Your task to perform on an android device: Open Google Chrome and click the shortcut for Amazon.com Image 0: 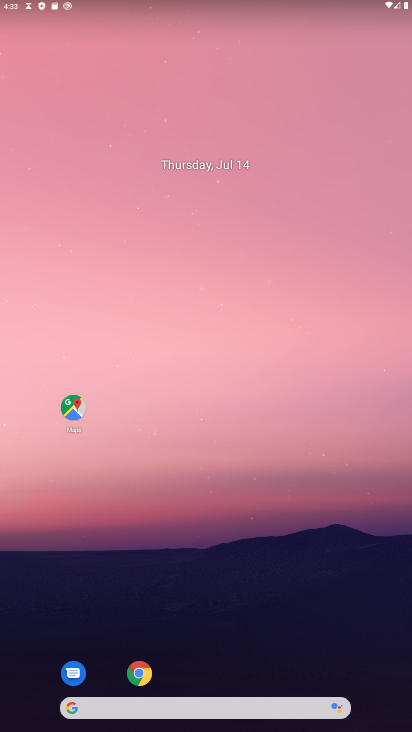
Step 0: drag from (246, 661) to (169, 91)
Your task to perform on an android device: Open Google Chrome and click the shortcut for Amazon.com Image 1: 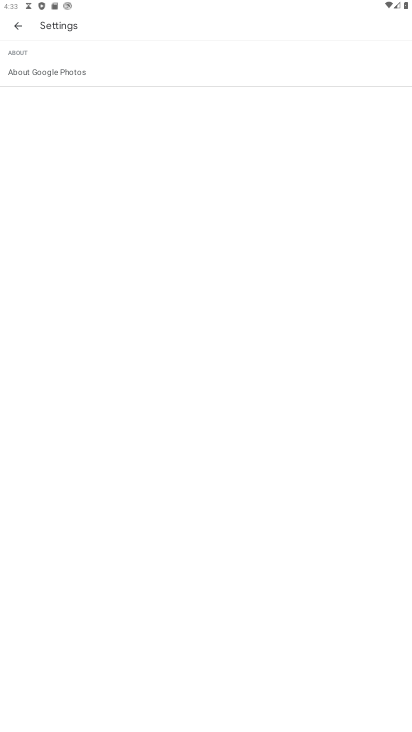
Step 1: drag from (192, 645) to (142, 66)
Your task to perform on an android device: Open Google Chrome and click the shortcut for Amazon.com Image 2: 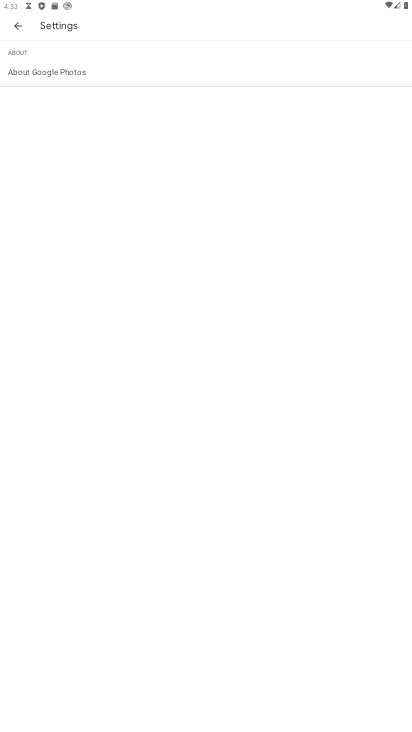
Step 2: click (25, 31)
Your task to perform on an android device: Open Google Chrome and click the shortcut for Amazon.com Image 3: 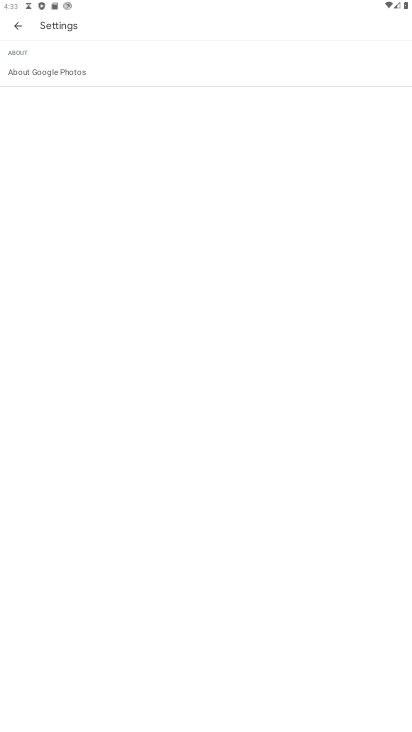
Step 3: click (19, 26)
Your task to perform on an android device: Open Google Chrome and click the shortcut for Amazon.com Image 4: 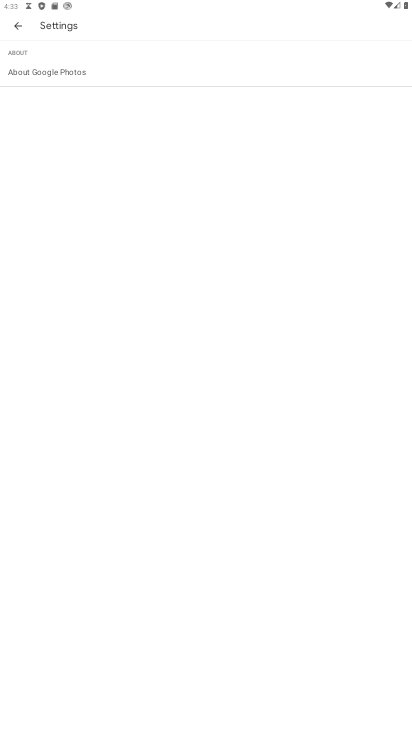
Step 4: click (19, 26)
Your task to perform on an android device: Open Google Chrome and click the shortcut for Amazon.com Image 5: 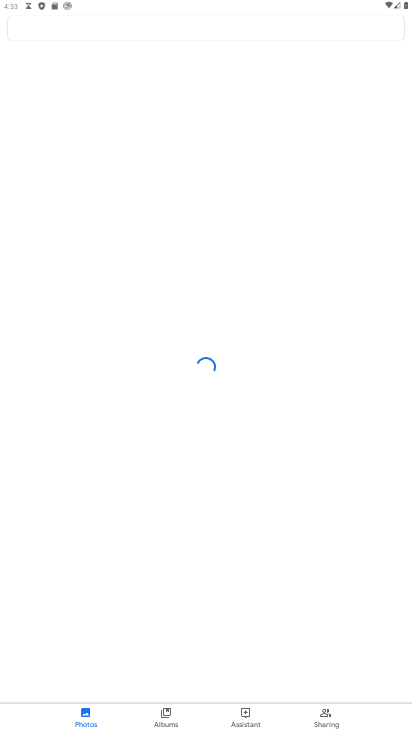
Step 5: press back button
Your task to perform on an android device: Open Google Chrome and click the shortcut for Amazon.com Image 6: 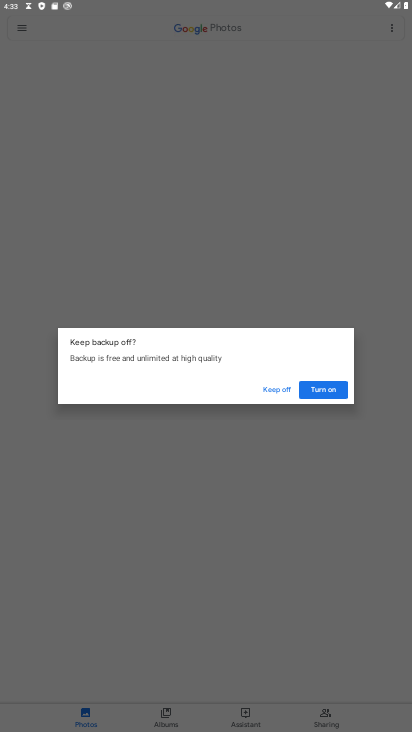
Step 6: click (278, 389)
Your task to perform on an android device: Open Google Chrome and click the shortcut for Amazon.com Image 7: 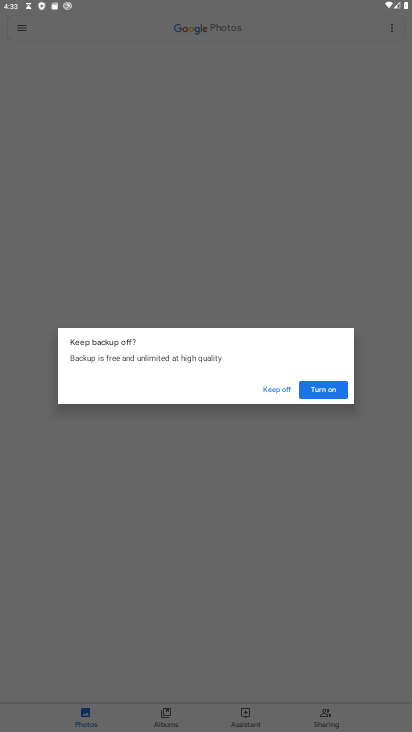
Step 7: click (277, 389)
Your task to perform on an android device: Open Google Chrome and click the shortcut for Amazon.com Image 8: 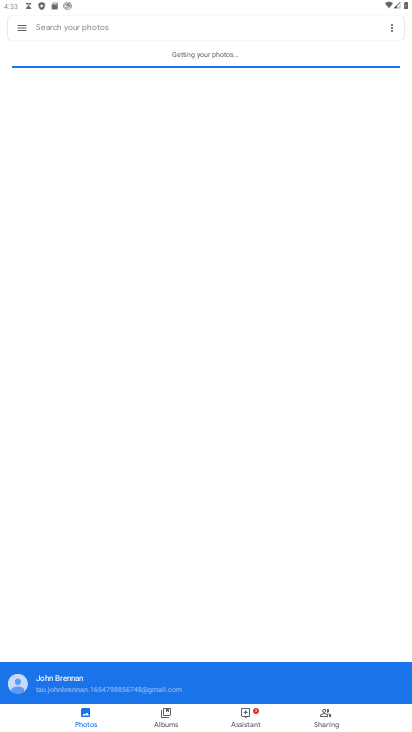
Step 8: press home button
Your task to perform on an android device: Open Google Chrome and click the shortcut for Amazon.com Image 9: 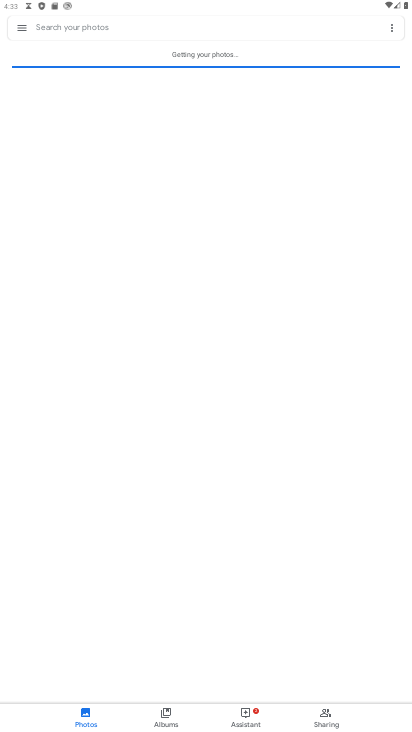
Step 9: press home button
Your task to perform on an android device: Open Google Chrome and click the shortcut for Amazon.com Image 10: 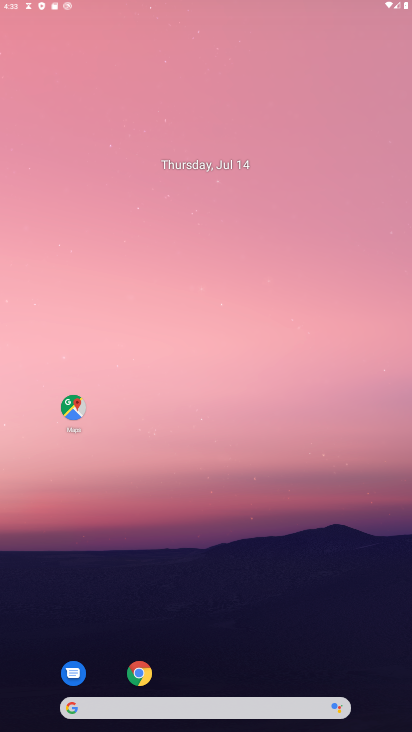
Step 10: press home button
Your task to perform on an android device: Open Google Chrome and click the shortcut for Amazon.com Image 11: 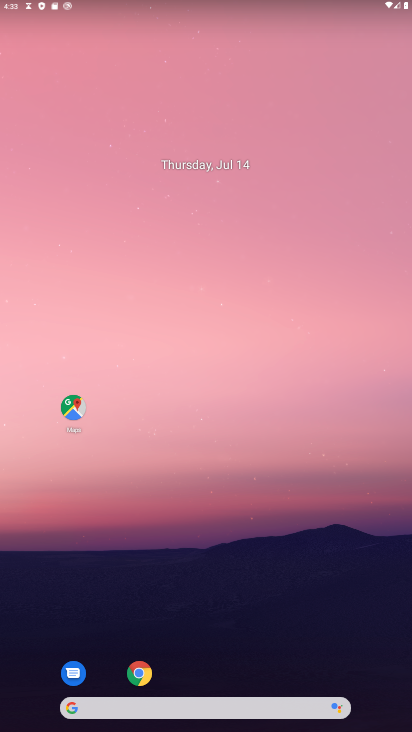
Step 11: drag from (261, 513) to (179, 25)
Your task to perform on an android device: Open Google Chrome and click the shortcut for Amazon.com Image 12: 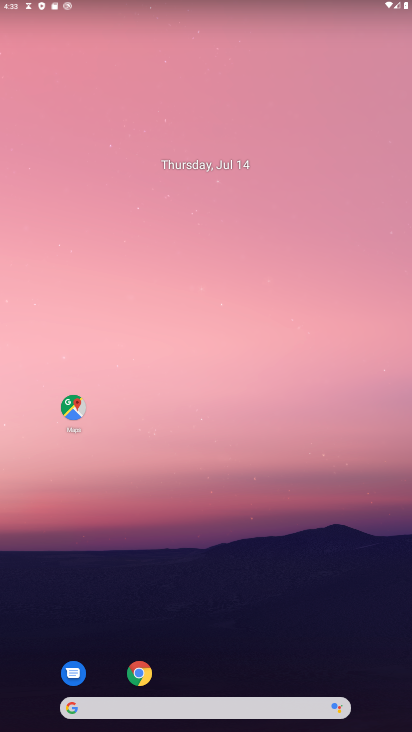
Step 12: drag from (202, 618) to (175, 140)
Your task to perform on an android device: Open Google Chrome and click the shortcut for Amazon.com Image 13: 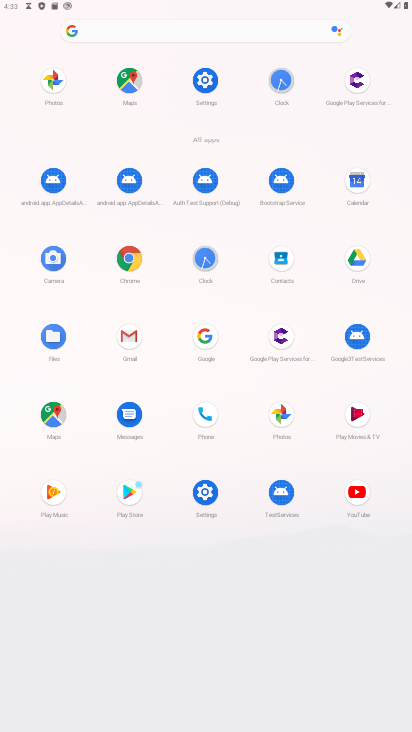
Step 13: click (127, 252)
Your task to perform on an android device: Open Google Chrome and click the shortcut for Amazon.com Image 14: 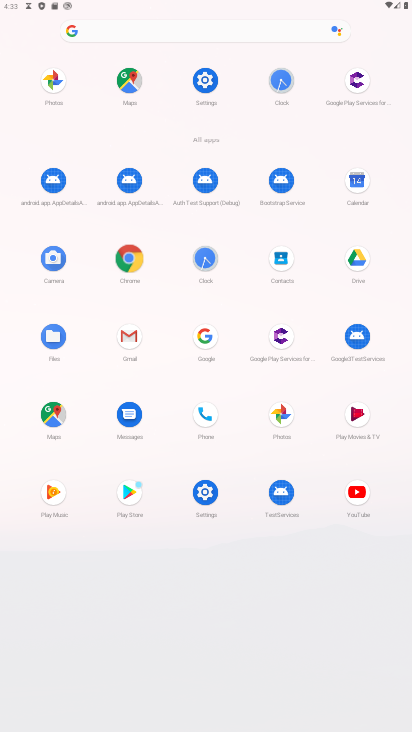
Step 14: click (127, 252)
Your task to perform on an android device: Open Google Chrome and click the shortcut for Amazon.com Image 15: 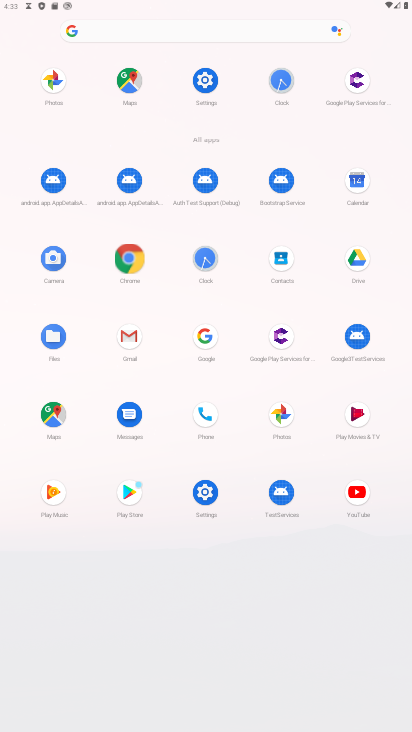
Step 15: click (133, 261)
Your task to perform on an android device: Open Google Chrome and click the shortcut for Amazon.com Image 16: 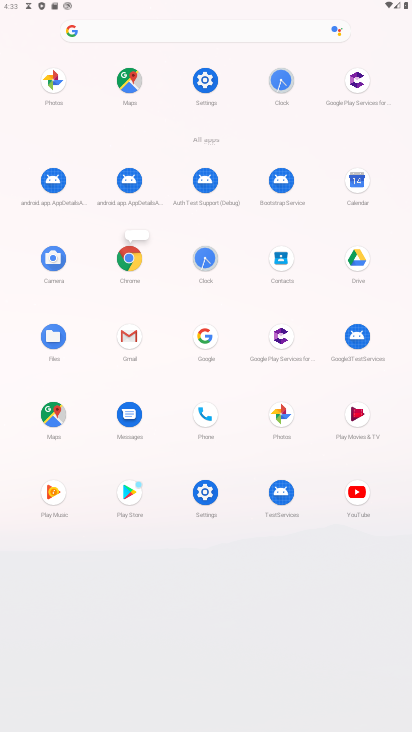
Step 16: click (134, 263)
Your task to perform on an android device: Open Google Chrome and click the shortcut for Amazon.com Image 17: 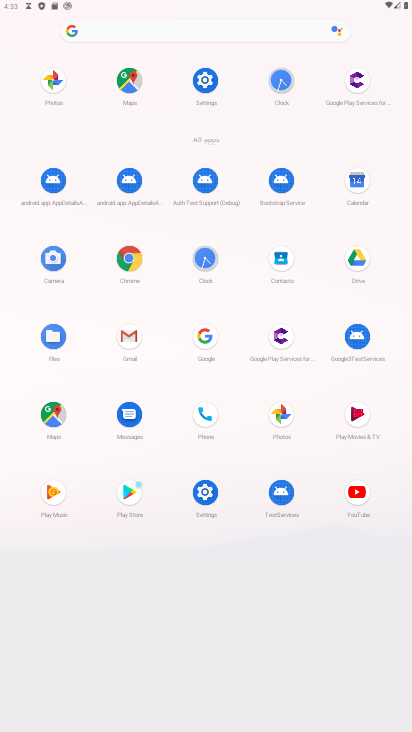
Step 17: click (135, 263)
Your task to perform on an android device: Open Google Chrome and click the shortcut for Amazon.com Image 18: 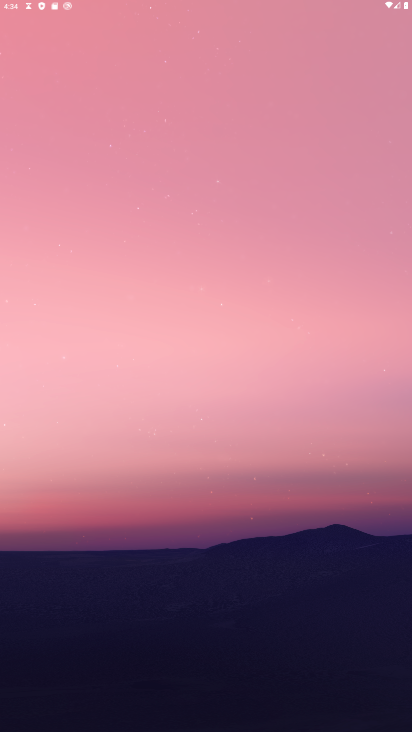
Step 18: click (136, 263)
Your task to perform on an android device: Open Google Chrome and click the shortcut for Amazon.com Image 19: 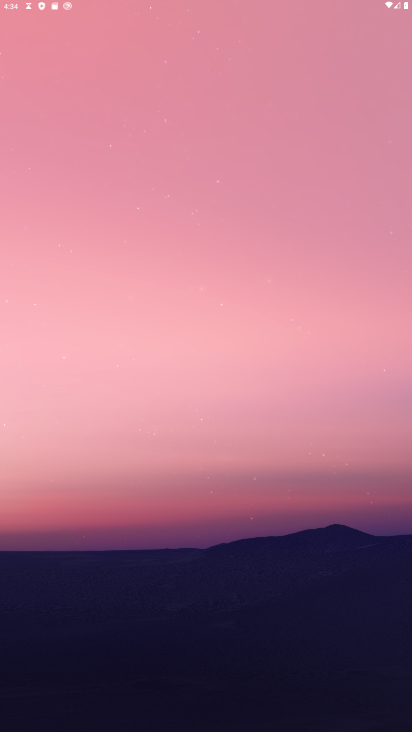
Step 19: click (137, 263)
Your task to perform on an android device: Open Google Chrome and click the shortcut for Amazon.com Image 20: 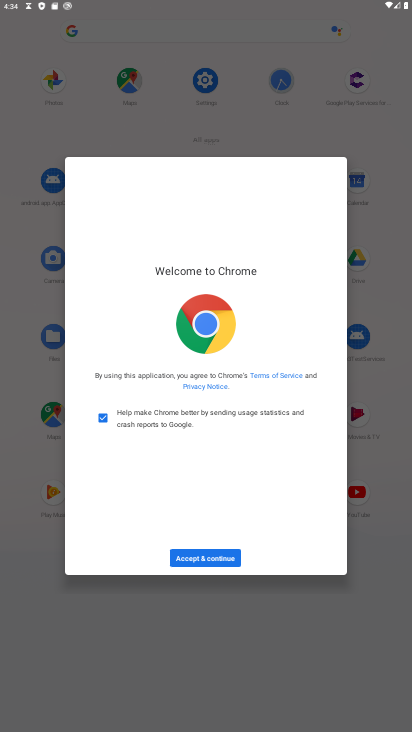
Step 20: click (203, 542)
Your task to perform on an android device: Open Google Chrome and click the shortcut for Amazon.com Image 21: 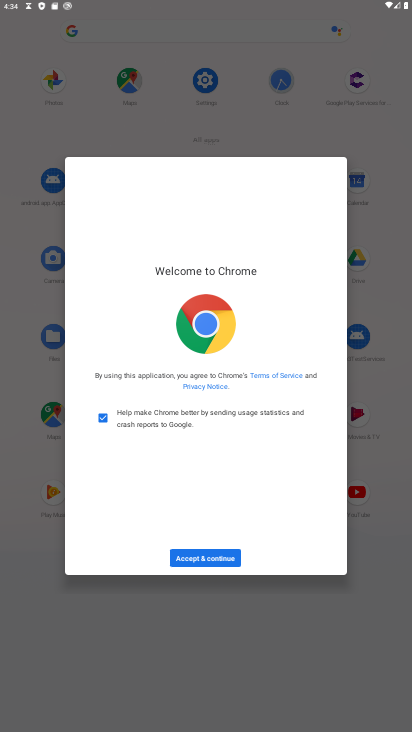
Step 21: click (203, 550)
Your task to perform on an android device: Open Google Chrome and click the shortcut for Amazon.com Image 22: 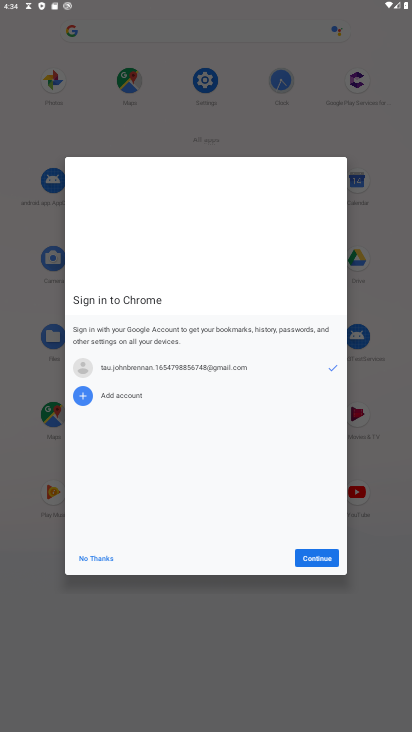
Step 22: click (204, 550)
Your task to perform on an android device: Open Google Chrome and click the shortcut for Amazon.com Image 23: 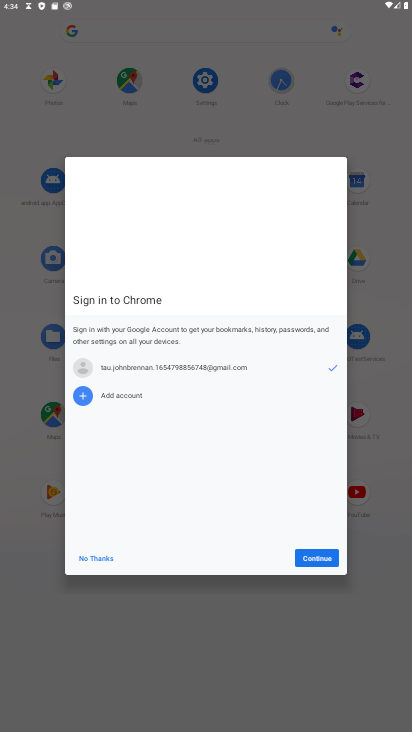
Step 23: click (205, 550)
Your task to perform on an android device: Open Google Chrome and click the shortcut for Amazon.com Image 24: 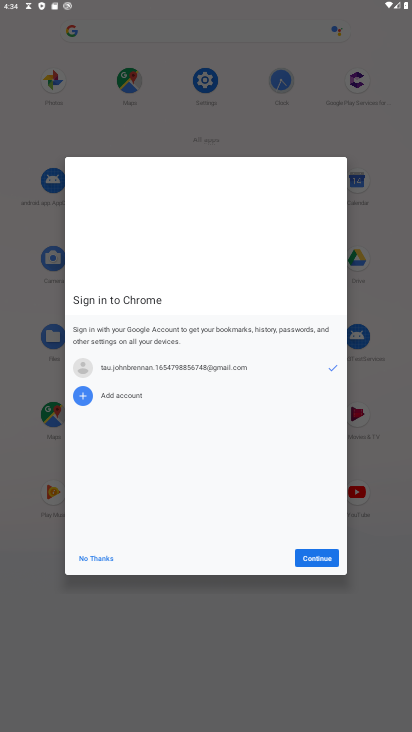
Step 24: click (207, 550)
Your task to perform on an android device: Open Google Chrome and click the shortcut for Amazon.com Image 25: 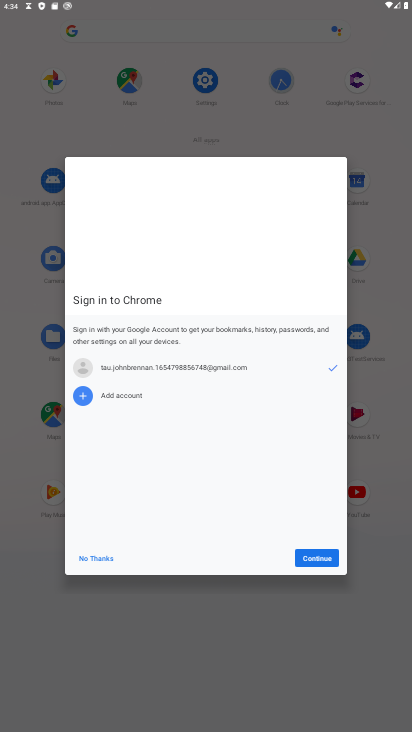
Step 25: click (316, 559)
Your task to perform on an android device: Open Google Chrome and click the shortcut for Amazon.com Image 26: 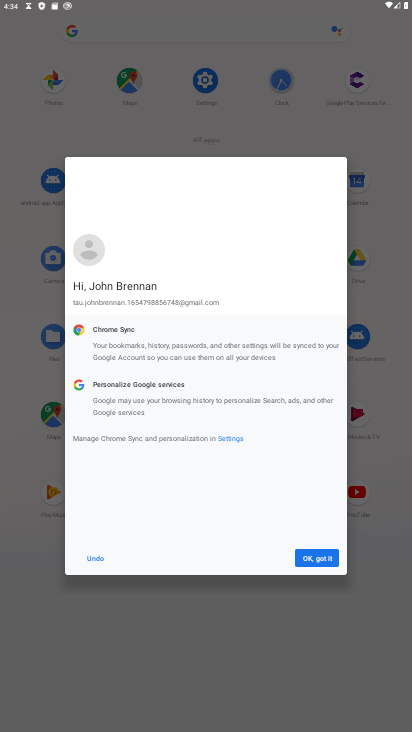
Step 26: click (316, 559)
Your task to perform on an android device: Open Google Chrome and click the shortcut for Amazon.com Image 27: 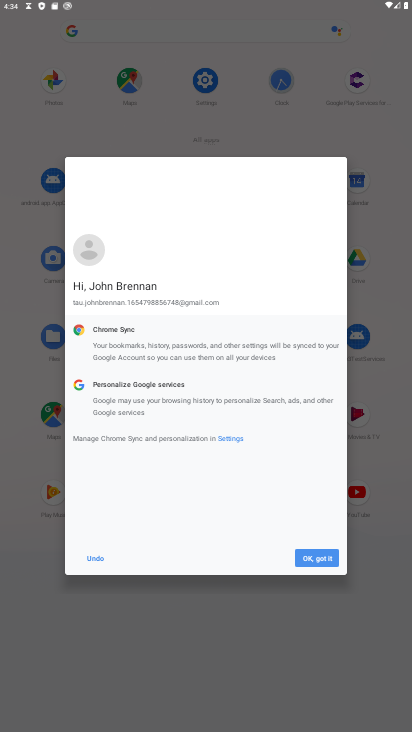
Step 27: click (320, 557)
Your task to perform on an android device: Open Google Chrome and click the shortcut for Amazon.com Image 28: 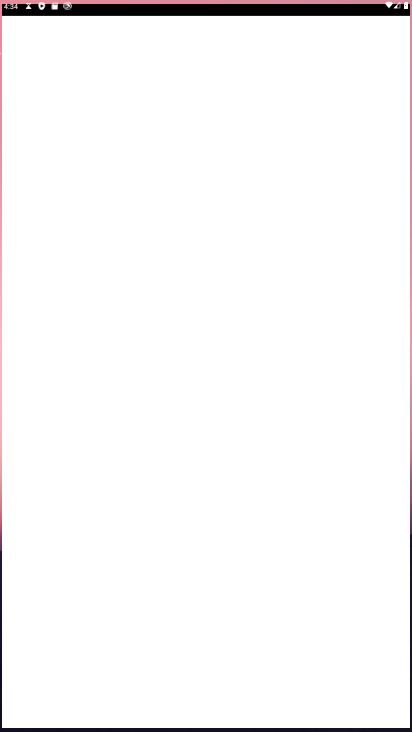
Step 28: click (321, 562)
Your task to perform on an android device: Open Google Chrome and click the shortcut for Amazon.com Image 29: 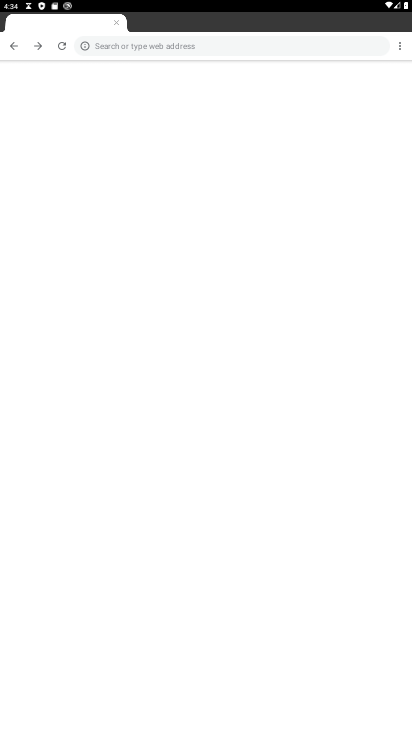
Step 29: click (321, 563)
Your task to perform on an android device: Open Google Chrome and click the shortcut for Amazon.com Image 30: 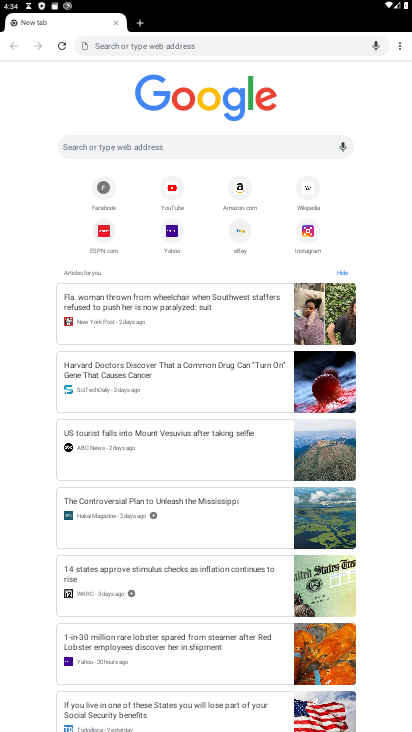
Step 30: click (250, 188)
Your task to perform on an android device: Open Google Chrome and click the shortcut for Amazon.com Image 31: 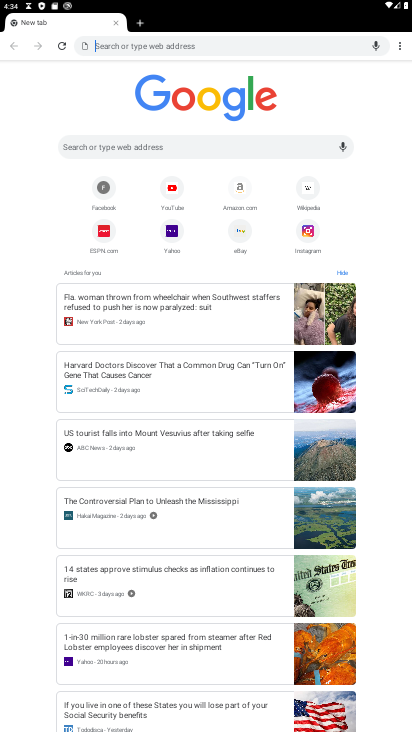
Step 31: click (248, 199)
Your task to perform on an android device: Open Google Chrome and click the shortcut for Amazon.com Image 32: 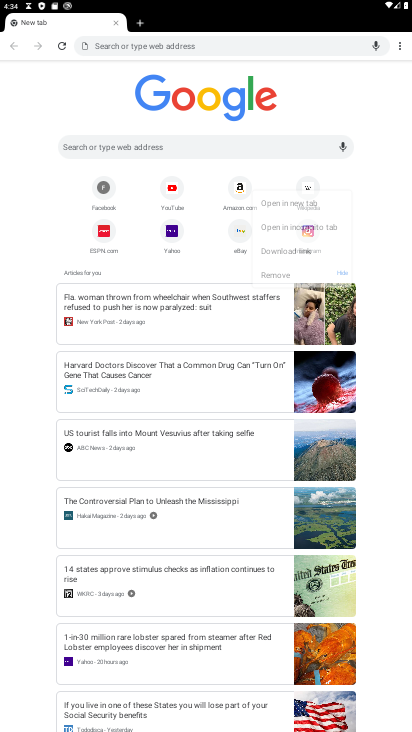
Step 32: click (247, 203)
Your task to perform on an android device: Open Google Chrome and click the shortcut for Amazon.com Image 33: 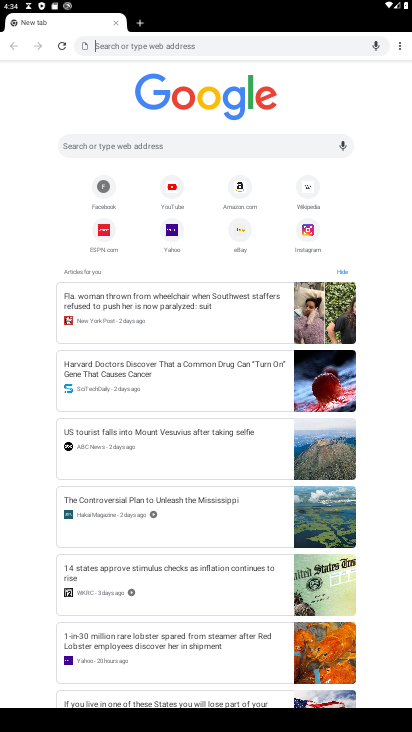
Step 33: click (249, 198)
Your task to perform on an android device: Open Google Chrome and click the shortcut for Amazon.com Image 34: 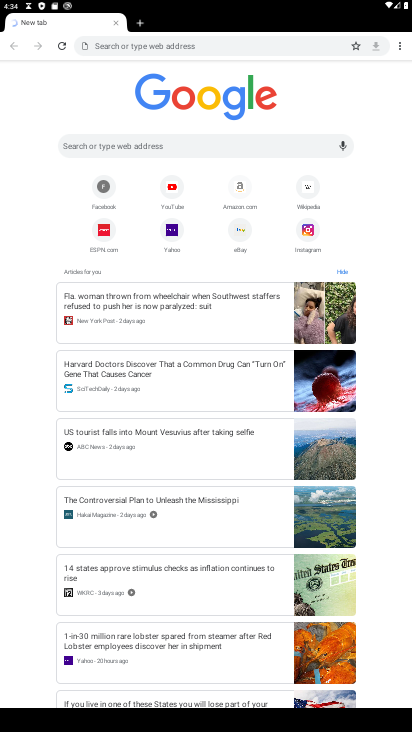
Step 34: click (241, 190)
Your task to perform on an android device: Open Google Chrome and click the shortcut for Amazon.com Image 35: 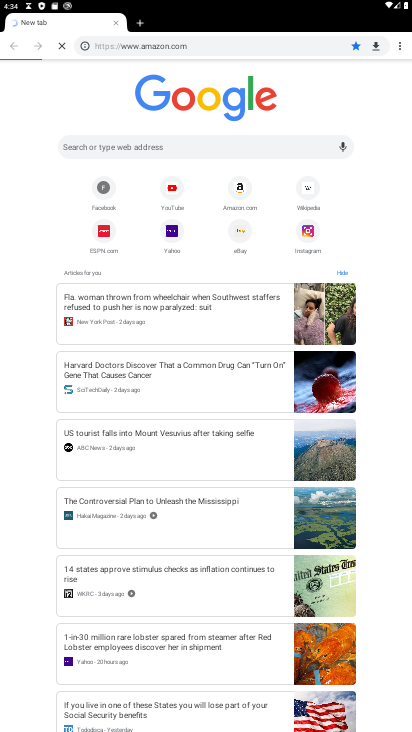
Step 35: click (237, 195)
Your task to perform on an android device: Open Google Chrome and click the shortcut for Amazon.com Image 36: 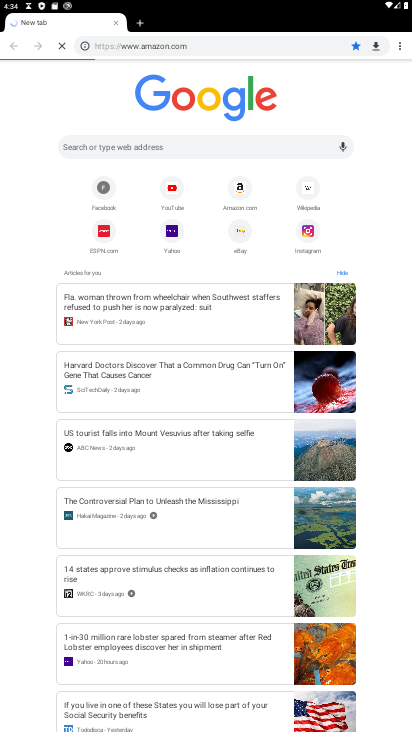
Step 36: click (237, 195)
Your task to perform on an android device: Open Google Chrome and click the shortcut for Amazon.com Image 37: 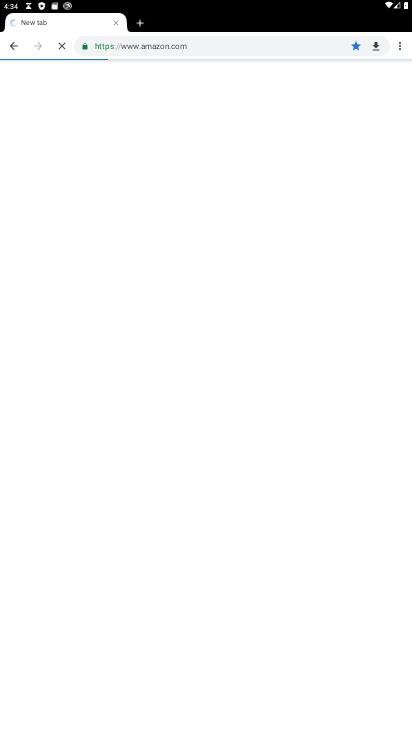
Step 37: click (237, 195)
Your task to perform on an android device: Open Google Chrome and click the shortcut for Amazon.com Image 38: 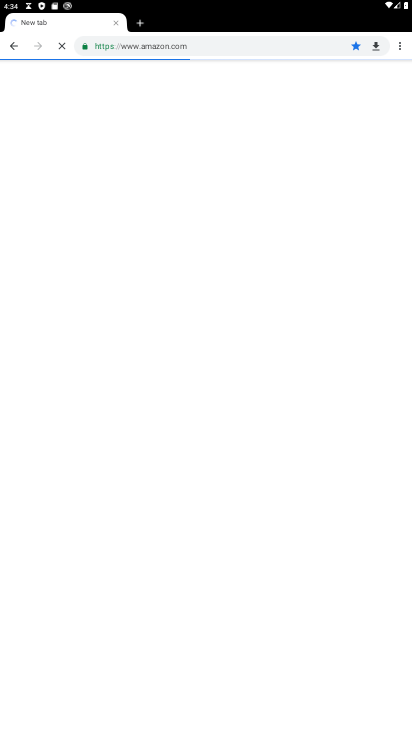
Step 38: click (239, 197)
Your task to perform on an android device: Open Google Chrome and click the shortcut for Amazon.com Image 39: 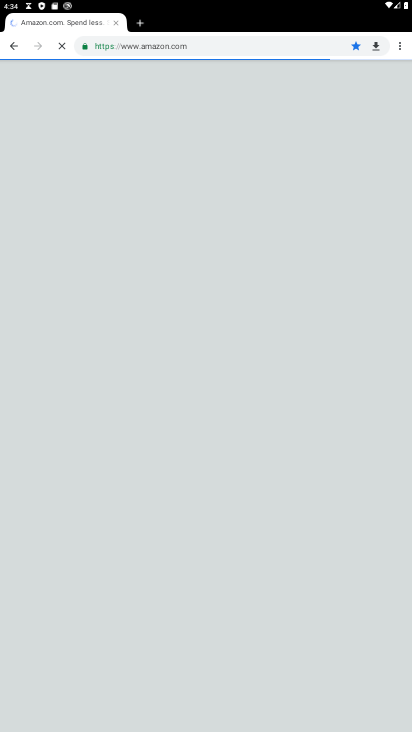
Step 39: task complete